Your task to perform on an android device: change the clock display to analog Image 0: 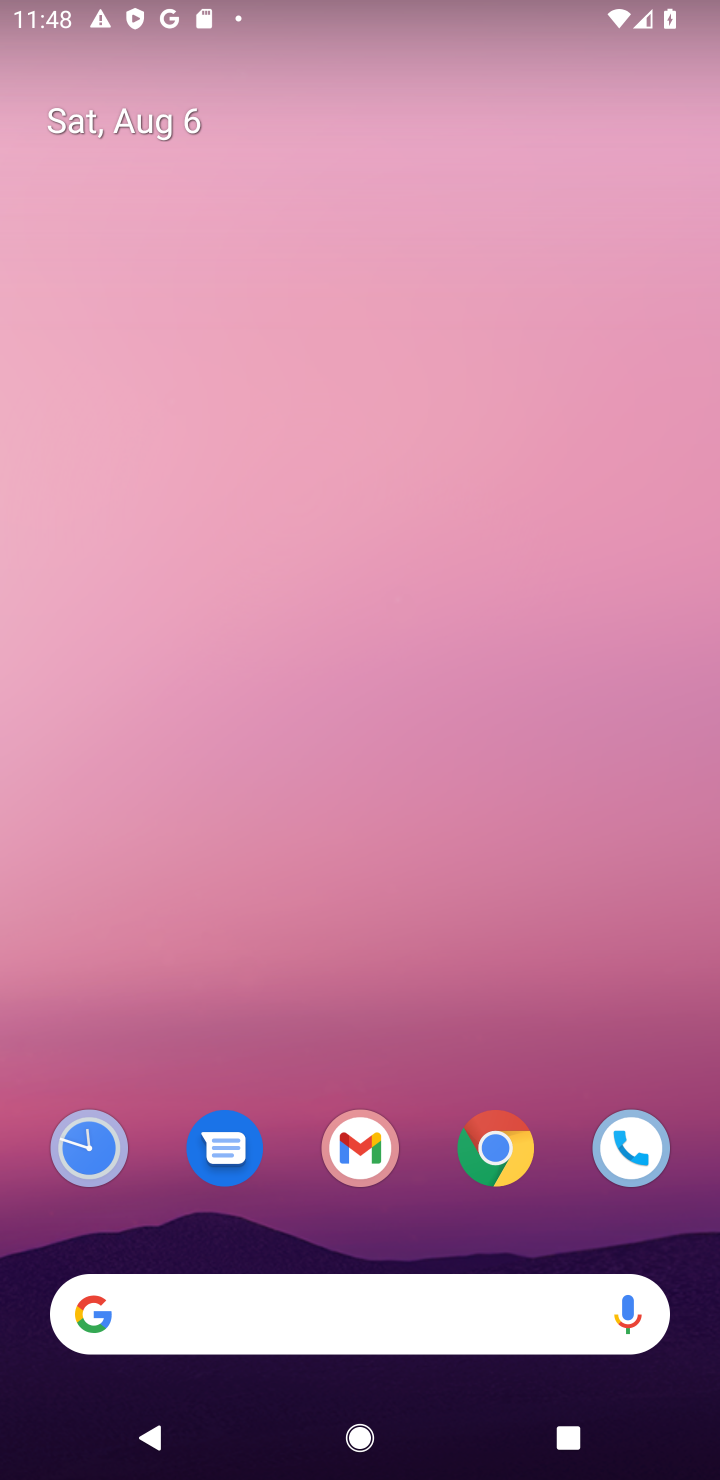
Step 0: click (93, 1129)
Your task to perform on an android device: change the clock display to analog Image 1: 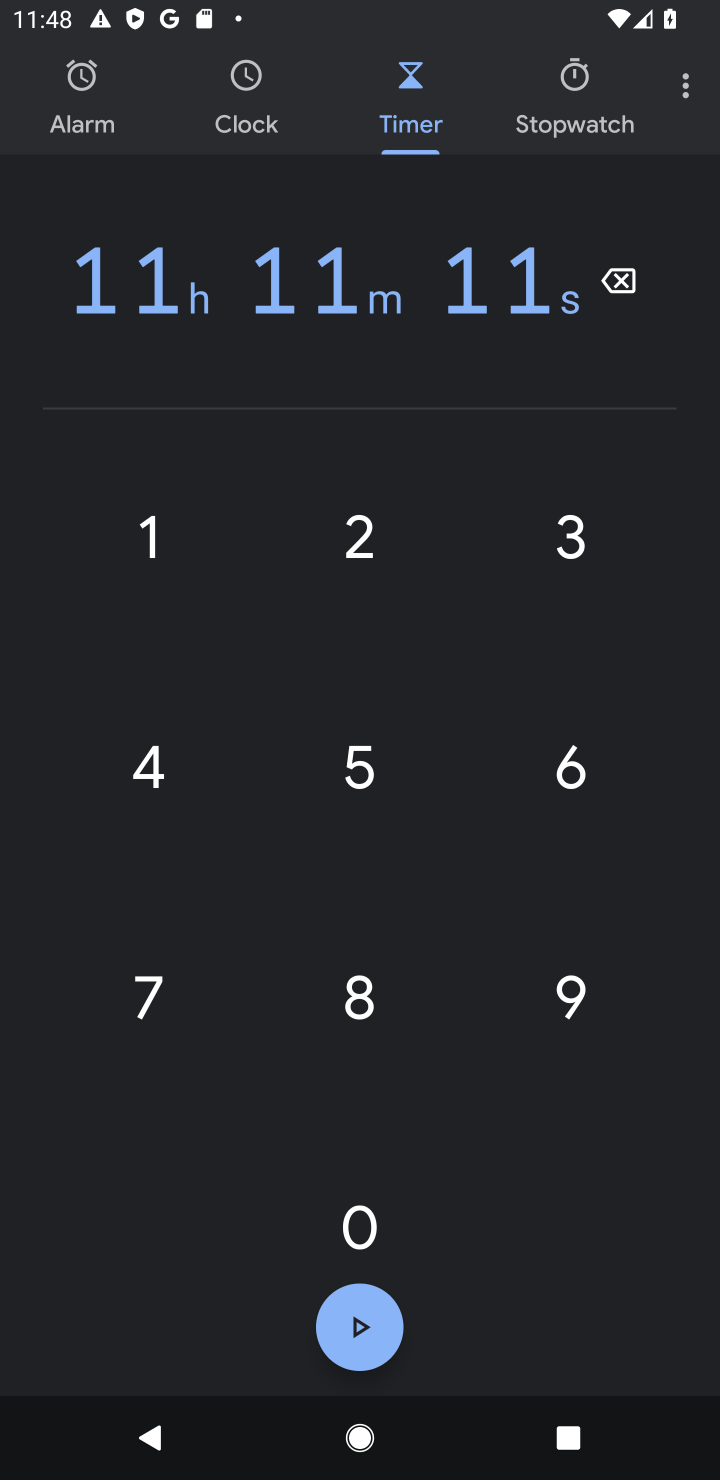
Step 1: click (700, 82)
Your task to perform on an android device: change the clock display to analog Image 2: 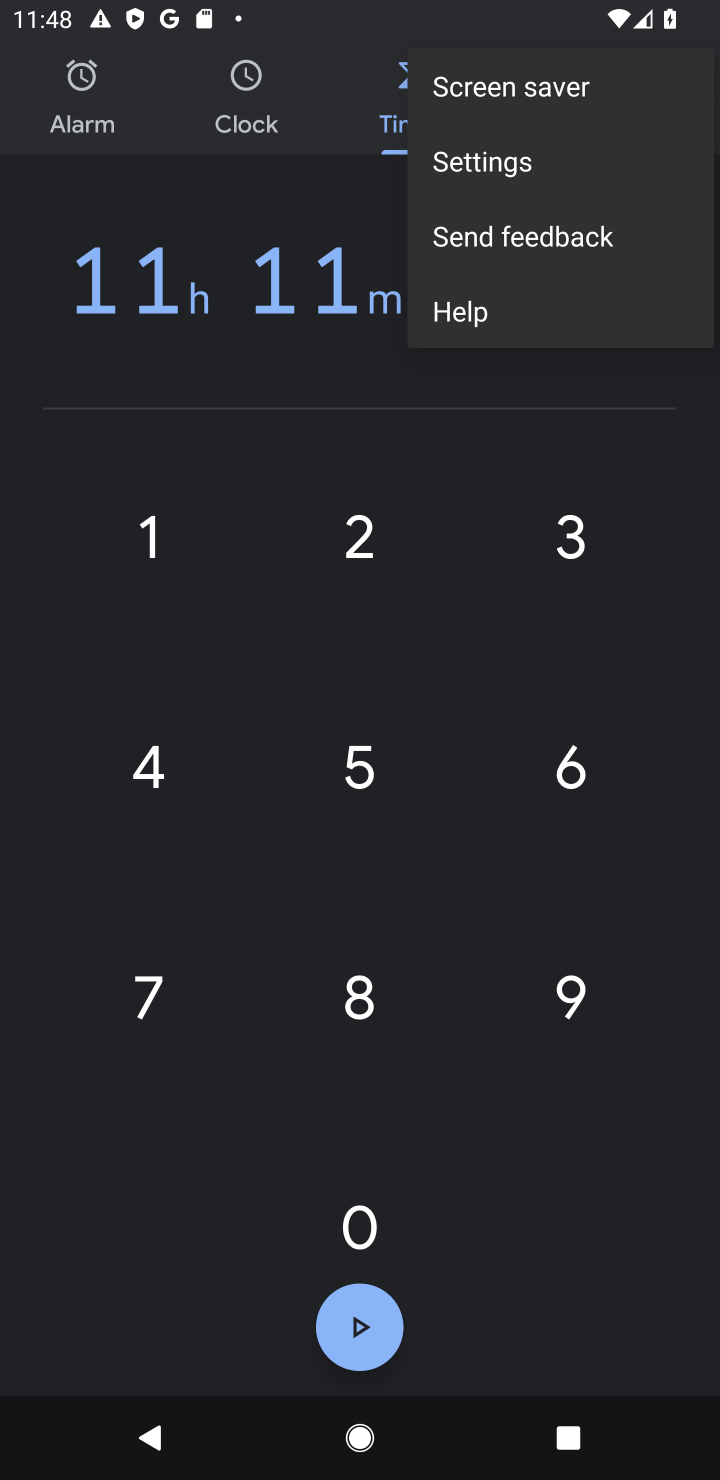
Step 2: click (453, 154)
Your task to perform on an android device: change the clock display to analog Image 3: 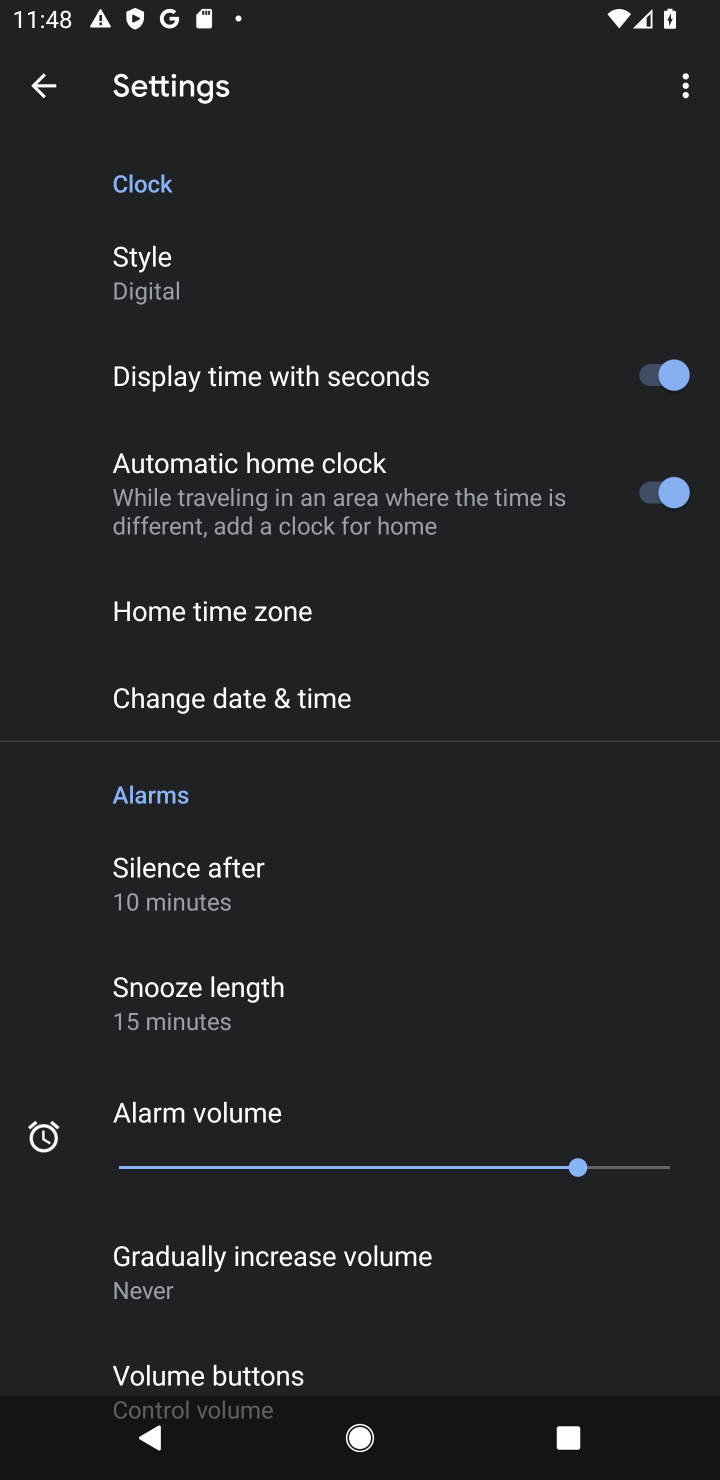
Step 3: click (153, 263)
Your task to perform on an android device: change the clock display to analog Image 4: 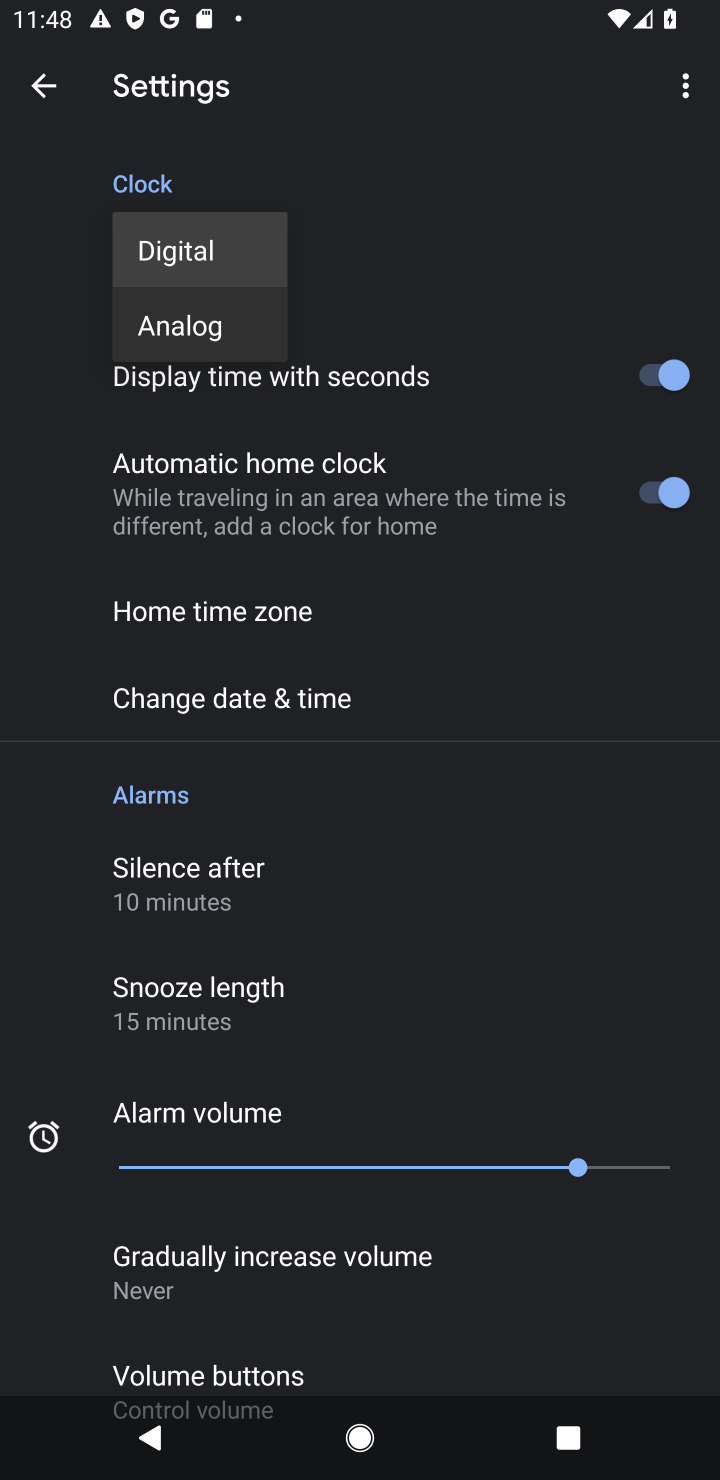
Step 4: click (158, 319)
Your task to perform on an android device: change the clock display to analog Image 5: 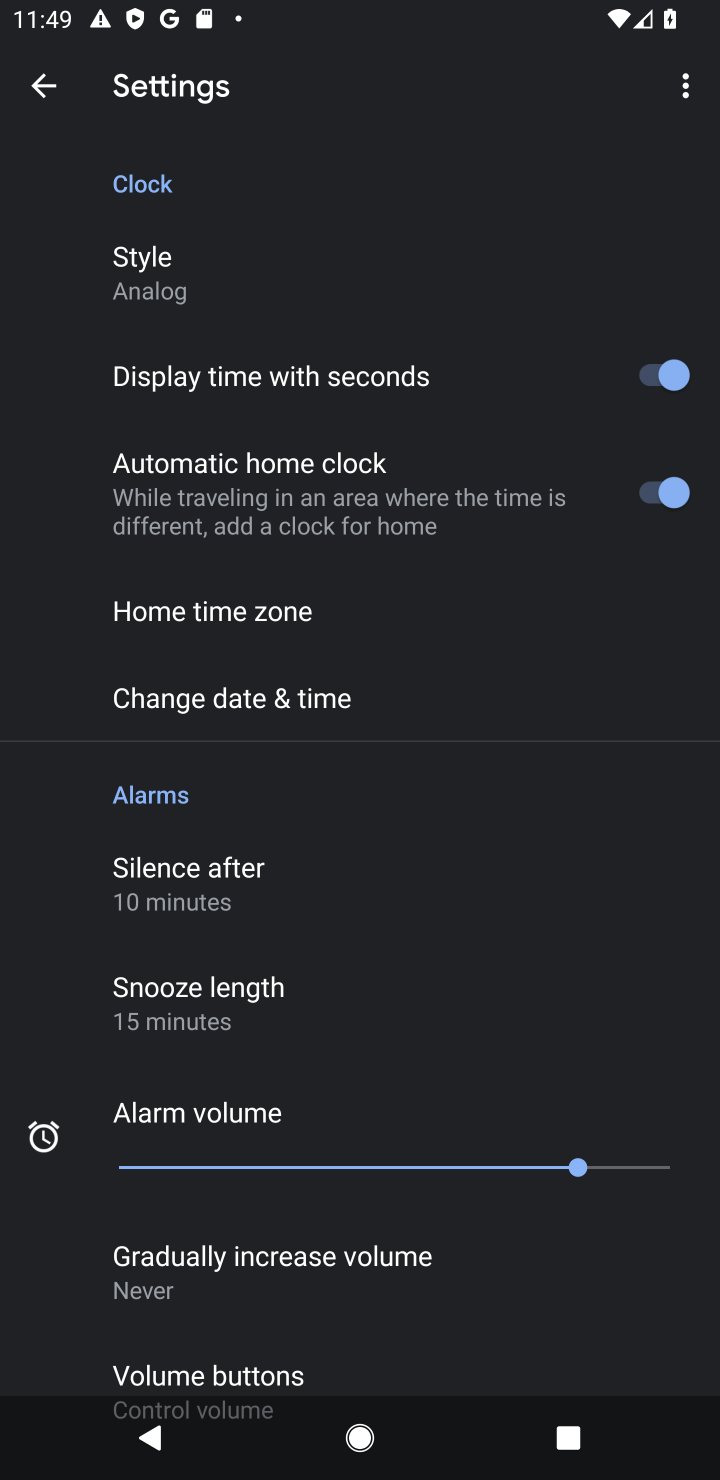
Step 5: task complete